Your task to perform on an android device: Show me the alarms in the clock app Image 0: 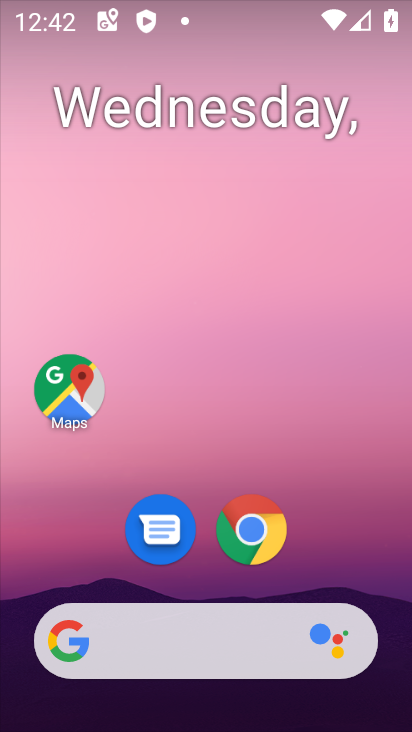
Step 0: drag from (394, 624) to (305, 14)
Your task to perform on an android device: Show me the alarms in the clock app Image 1: 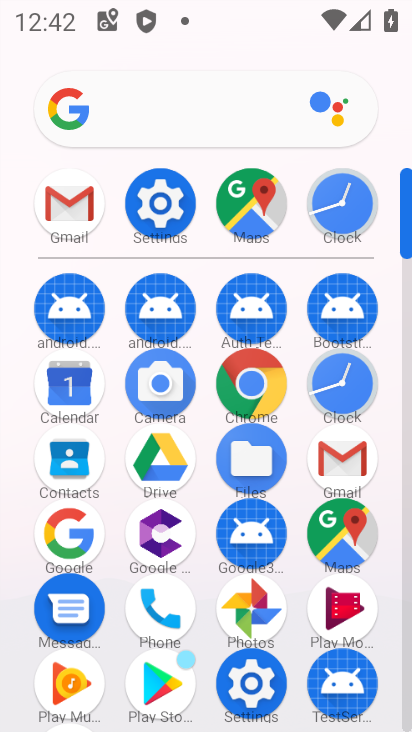
Step 1: click (408, 702)
Your task to perform on an android device: Show me the alarms in the clock app Image 2: 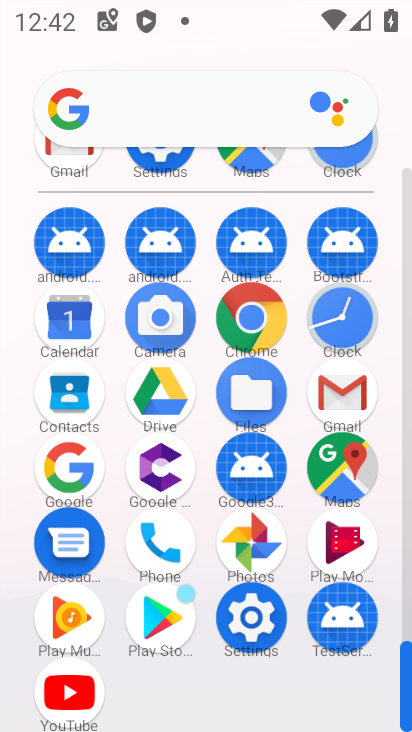
Step 2: click (342, 314)
Your task to perform on an android device: Show me the alarms in the clock app Image 3: 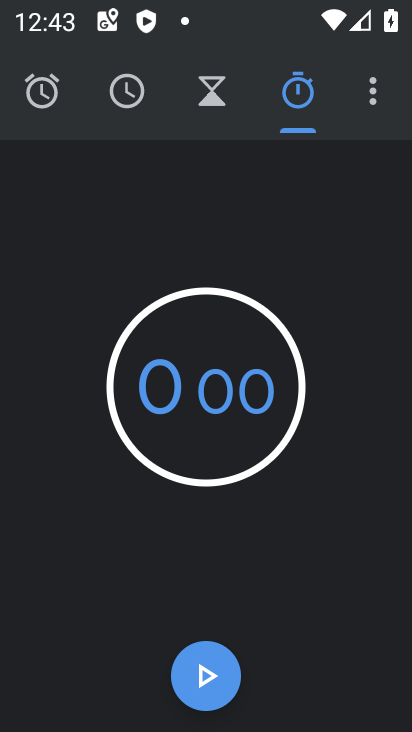
Step 3: click (41, 92)
Your task to perform on an android device: Show me the alarms in the clock app Image 4: 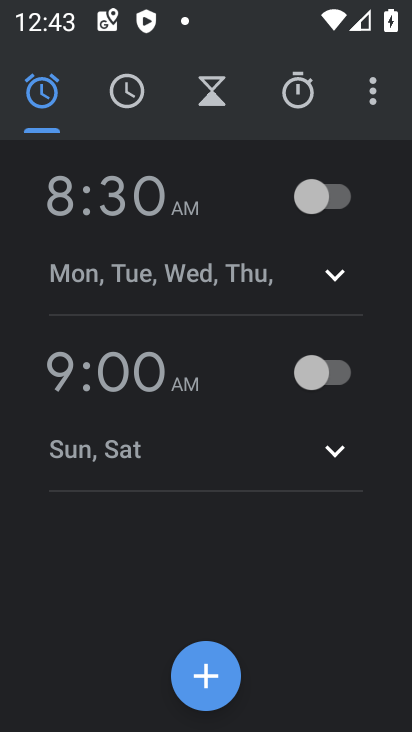
Step 4: task complete